Your task to perform on an android device: Open wifi settings Image 0: 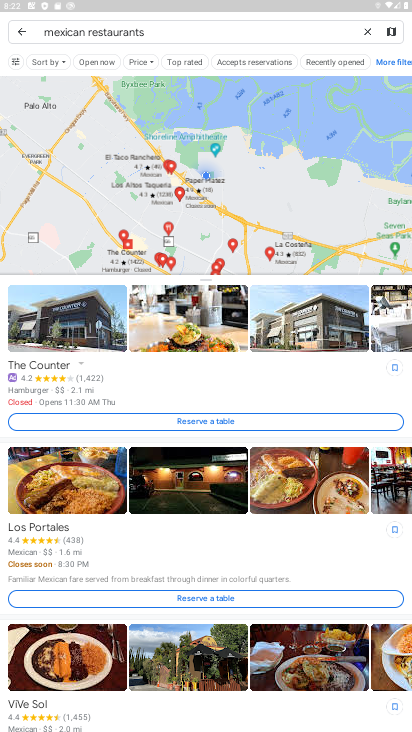
Step 0: press home button
Your task to perform on an android device: Open wifi settings Image 1: 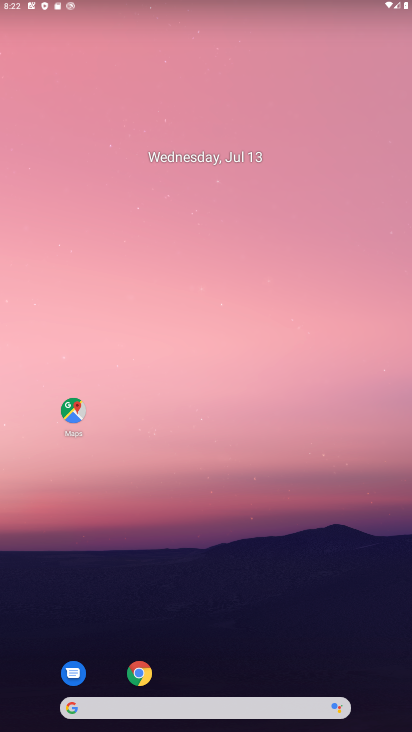
Step 1: drag from (317, 614) to (293, 217)
Your task to perform on an android device: Open wifi settings Image 2: 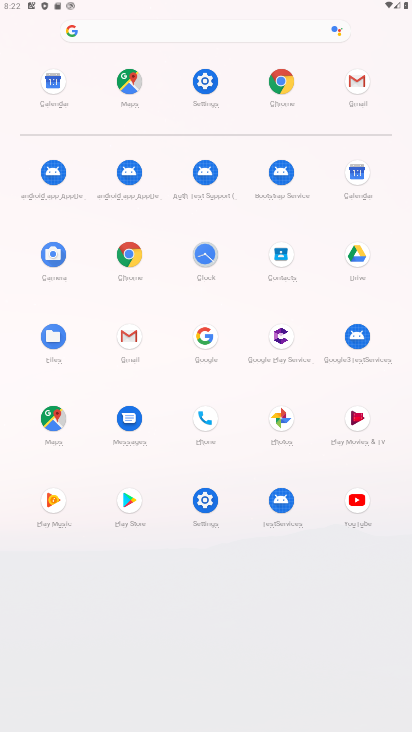
Step 2: click (201, 83)
Your task to perform on an android device: Open wifi settings Image 3: 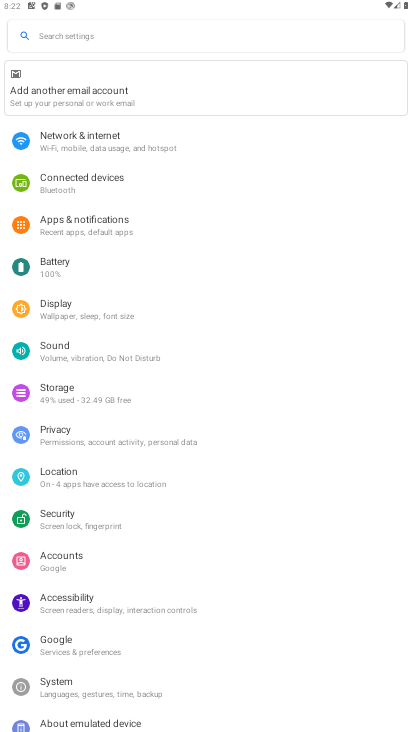
Step 3: click (79, 146)
Your task to perform on an android device: Open wifi settings Image 4: 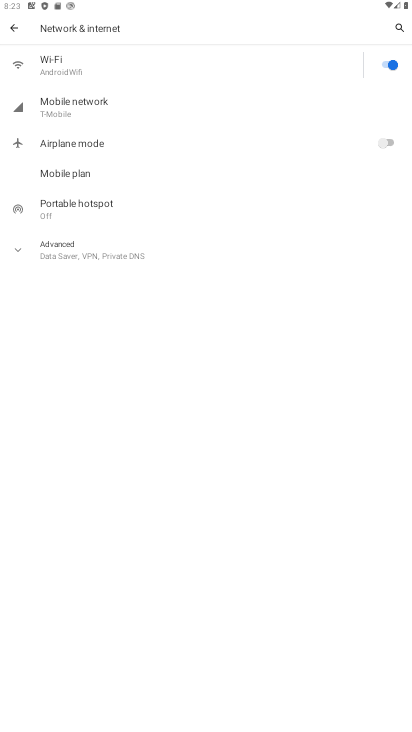
Step 4: click (117, 66)
Your task to perform on an android device: Open wifi settings Image 5: 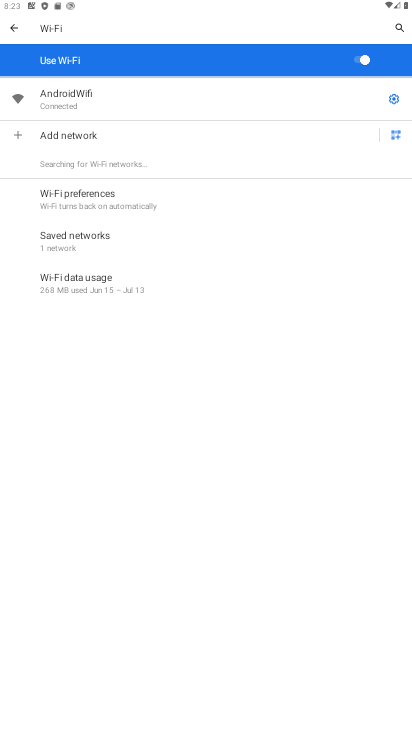
Step 5: click (394, 97)
Your task to perform on an android device: Open wifi settings Image 6: 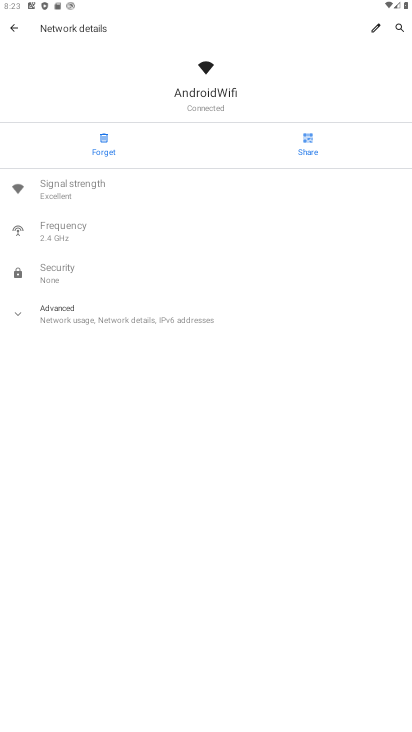
Step 6: task complete